Your task to perform on an android device: Show me recent news Image 0: 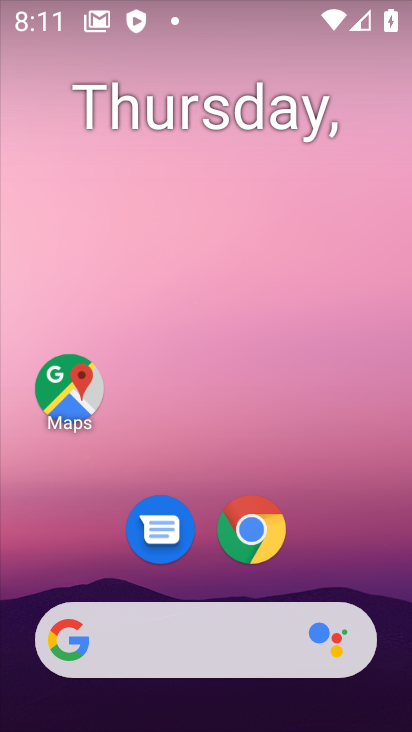
Step 0: drag from (207, 492) to (202, 175)
Your task to perform on an android device: Show me recent news Image 1: 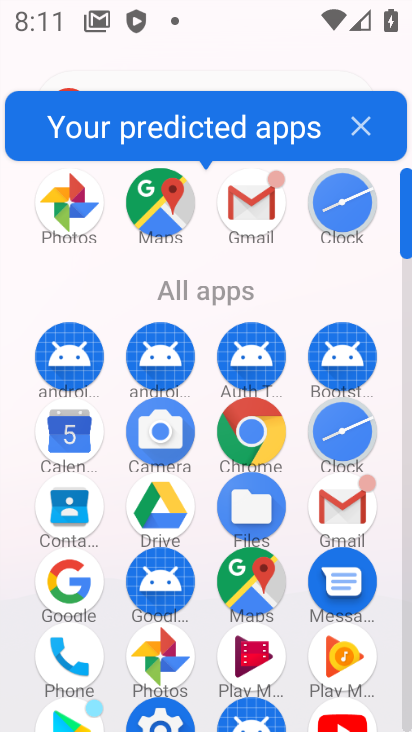
Step 1: click (80, 581)
Your task to perform on an android device: Show me recent news Image 2: 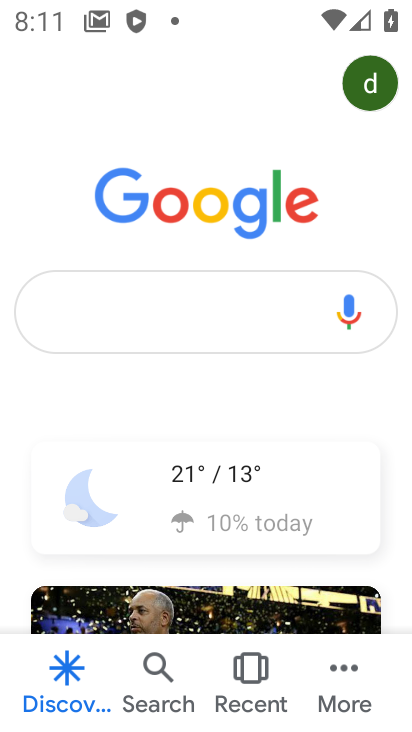
Step 2: click (237, 687)
Your task to perform on an android device: Show me recent news Image 3: 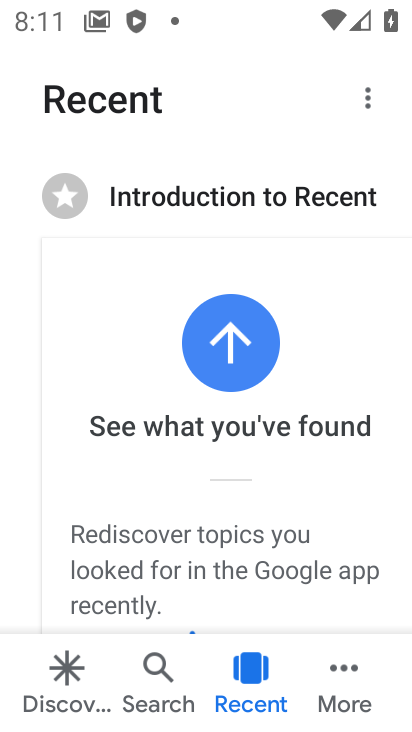
Step 3: click (84, 654)
Your task to perform on an android device: Show me recent news Image 4: 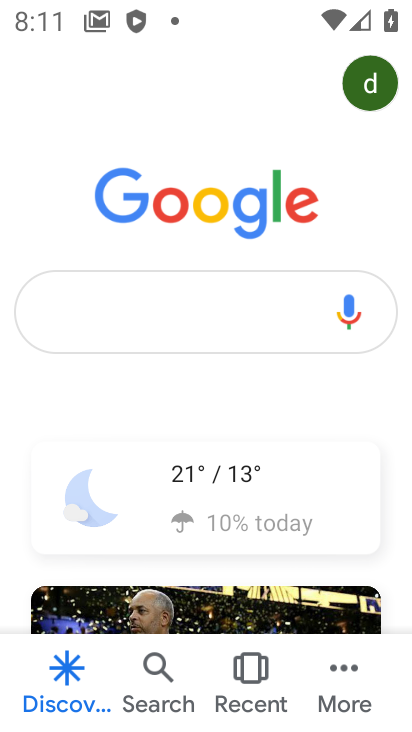
Step 4: click (184, 293)
Your task to perform on an android device: Show me recent news Image 5: 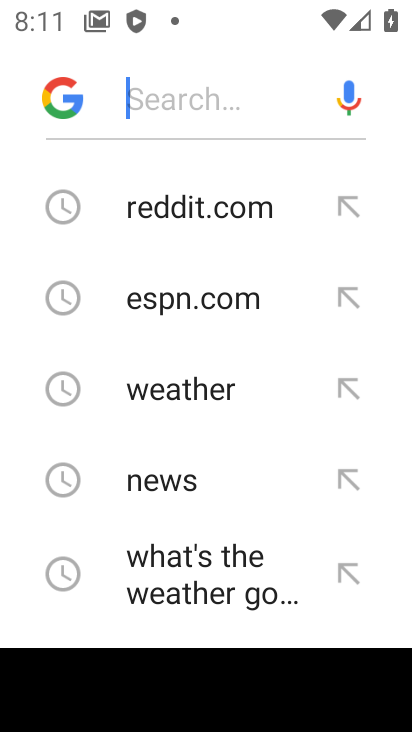
Step 5: type "recent news"
Your task to perform on an android device: Show me recent news Image 6: 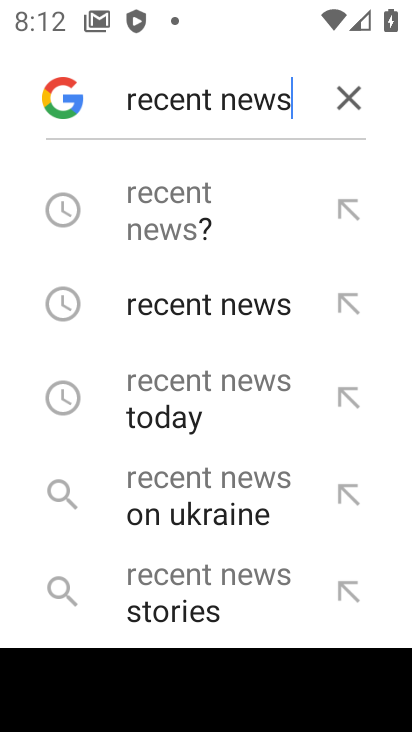
Step 6: click (231, 310)
Your task to perform on an android device: Show me recent news Image 7: 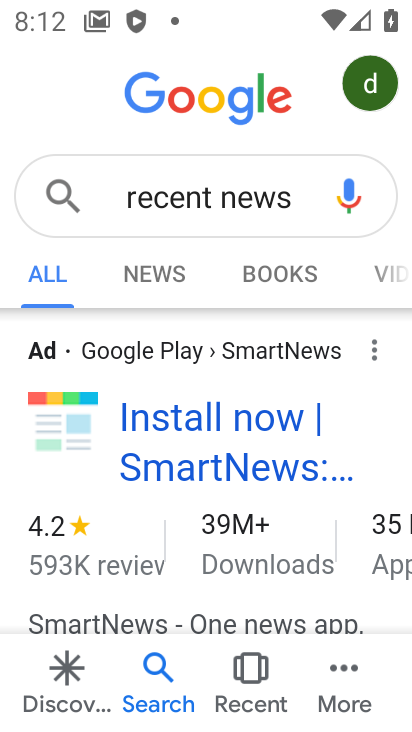
Step 7: drag from (248, 507) to (246, 255)
Your task to perform on an android device: Show me recent news Image 8: 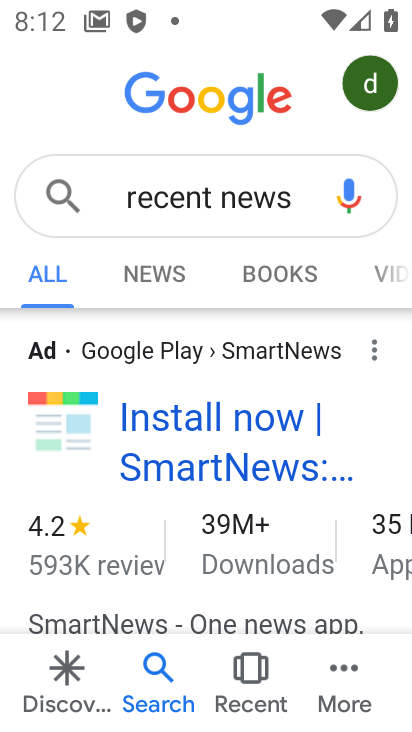
Step 8: click (164, 274)
Your task to perform on an android device: Show me recent news Image 9: 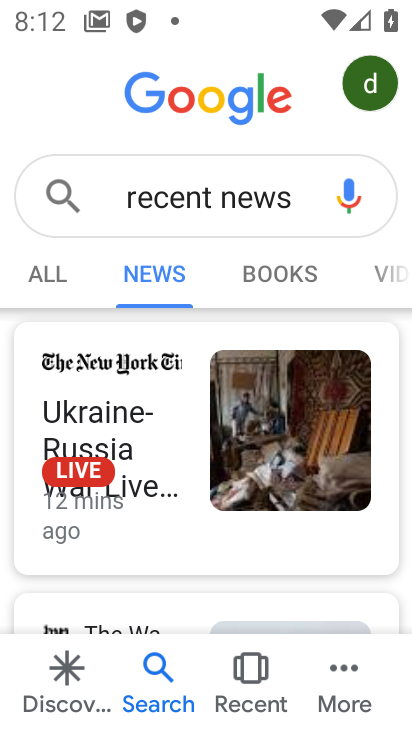
Step 9: task complete